Your task to perform on an android device: Go to Yahoo.com Image 0: 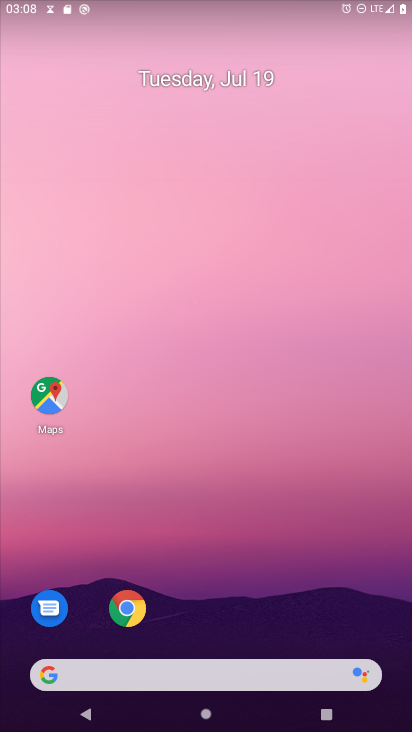
Step 0: drag from (272, 668) to (8, 537)
Your task to perform on an android device: Go to Yahoo.com Image 1: 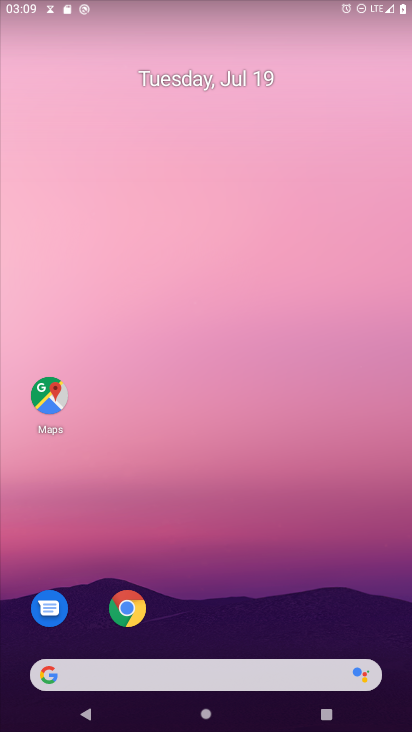
Step 1: drag from (223, 666) to (288, 70)
Your task to perform on an android device: Go to Yahoo.com Image 2: 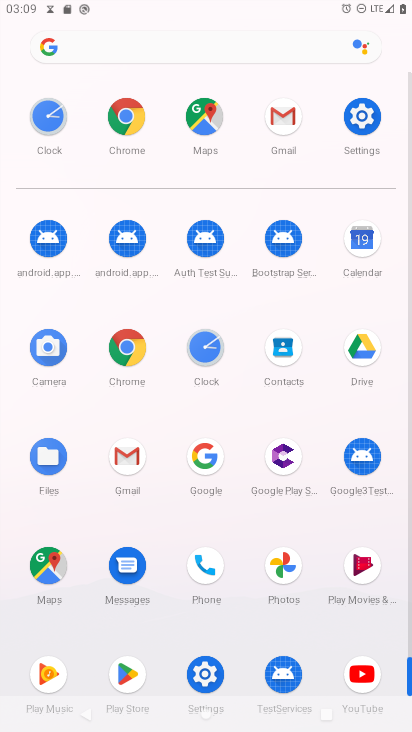
Step 2: click (131, 343)
Your task to perform on an android device: Go to Yahoo.com Image 3: 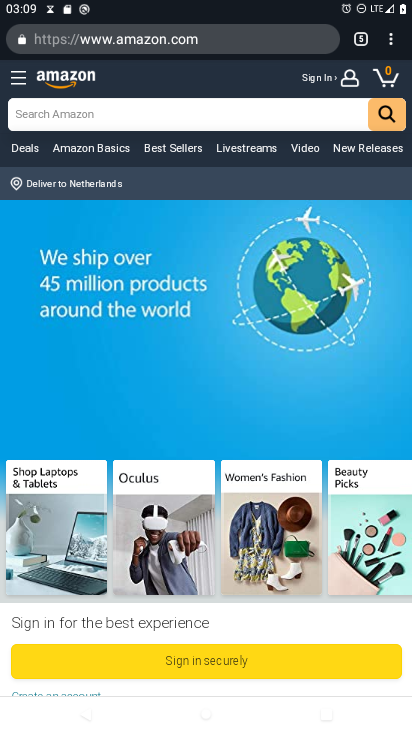
Step 3: click (217, 46)
Your task to perform on an android device: Go to Yahoo.com Image 4: 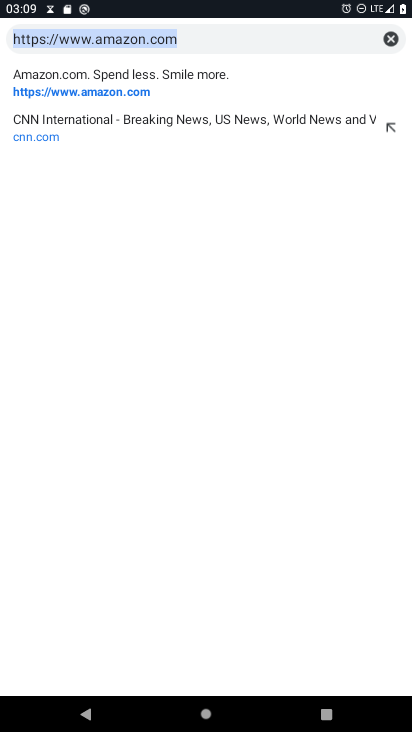
Step 4: type "yahoo.com"
Your task to perform on an android device: Go to Yahoo.com Image 5: 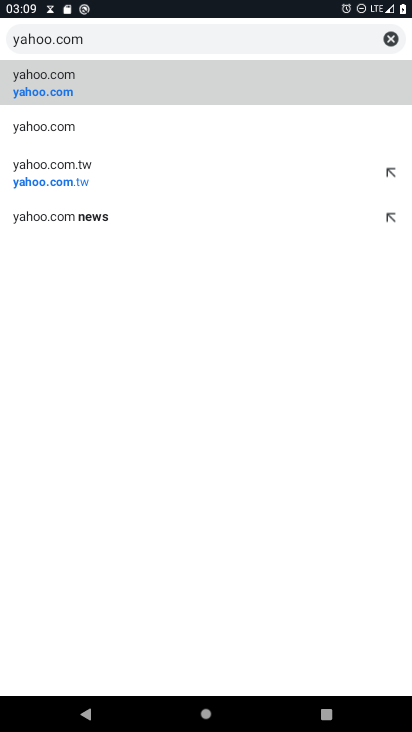
Step 5: click (92, 76)
Your task to perform on an android device: Go to Yahoo.com Image 6: 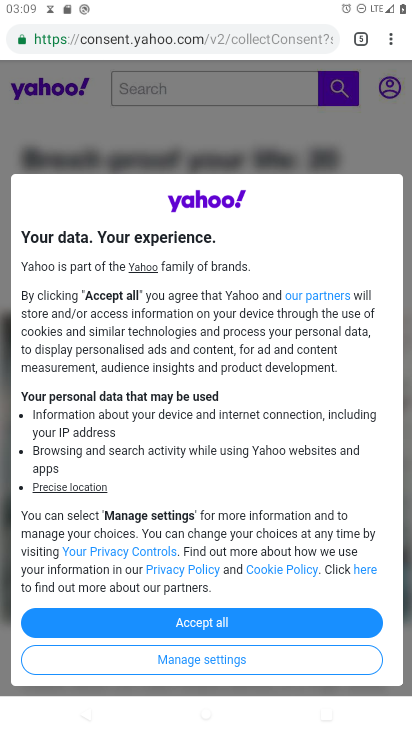
Step 6: task complete